Your task to perform on an android device: Open the Play Movies app and select the watchlist tab. Image 0: 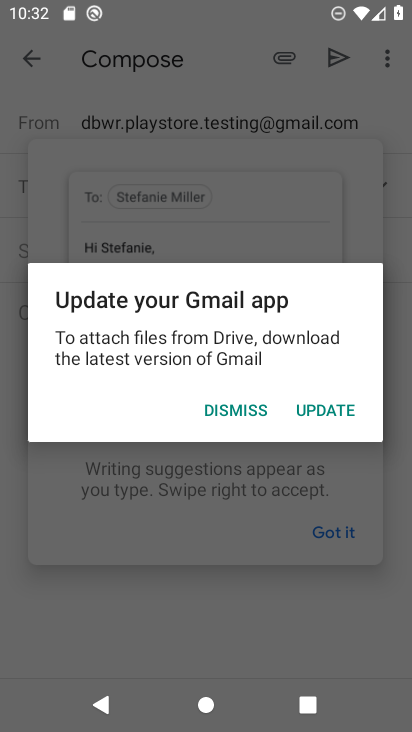
Step 0: press home button
Your task to perform on an android device: Open the Play Movies app and select the watchlist tab. Image 1: 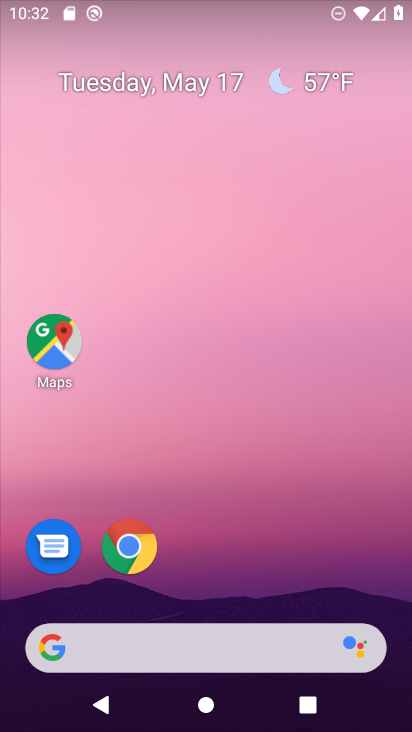
Step 1: drag from (295, 592) to (355, 1)
Your task to perform on an android device: Open the Play Movies app and select the watchlist tab. Image 2: 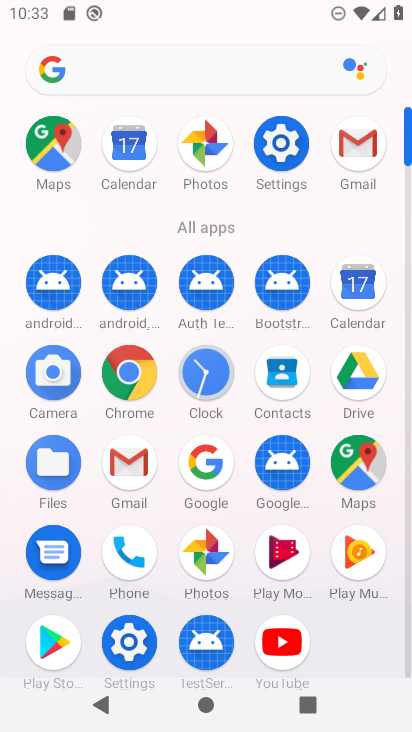
Step 2: click (262, 558)
Your task to perform on an android device: Open the Play Movies app and select the watchlist tab. Image 3: 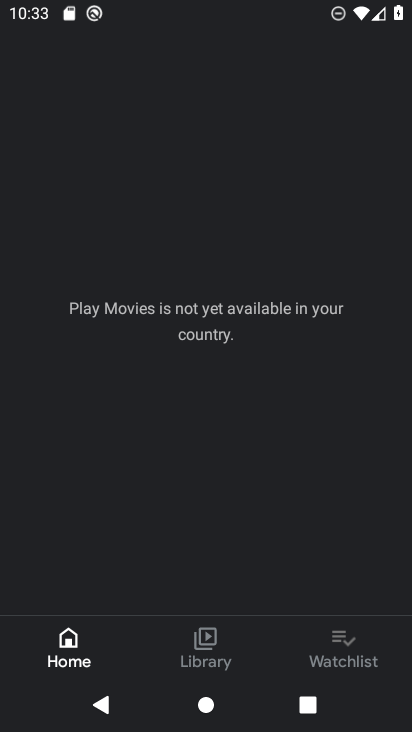
Step 3: click (343, 652)
Your task to perform on an android device: Open the Play Movies app and select the watchlist tab. Image 4: 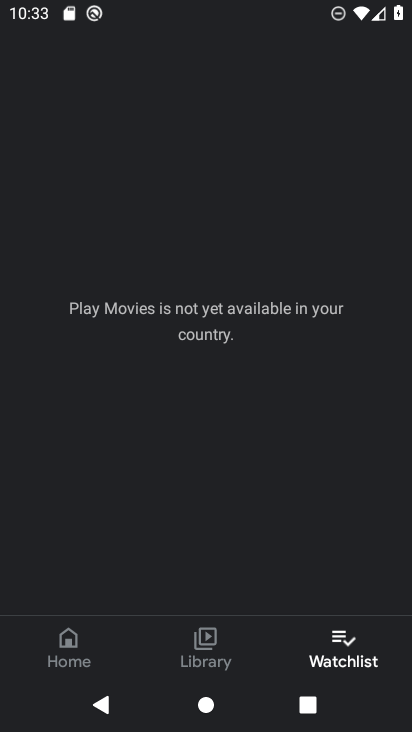
Step 4: task complete